Your task to perform on an android device: Go to settings Image 0: 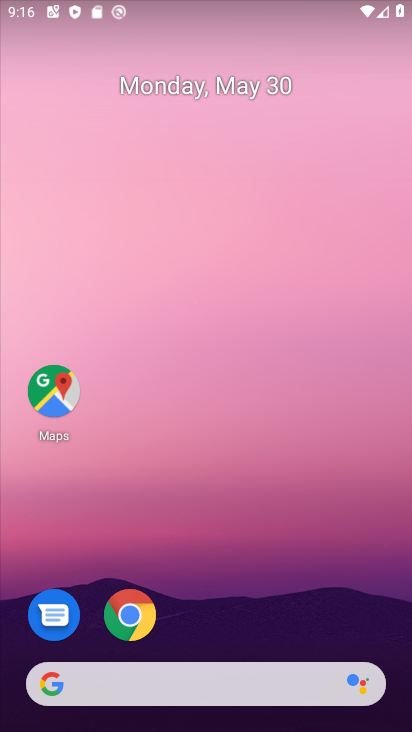
Step 0: drag from (274, 405) to (216, 19)
Your task to perform on an android device: Go to settings Image 1: 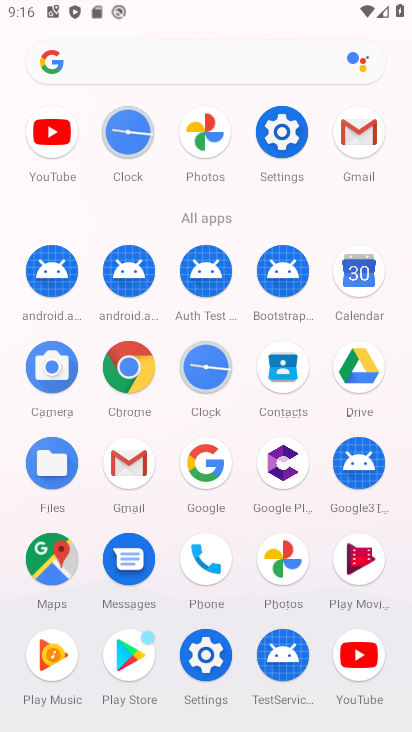
Step 1: click (284, 139)
Your task to perform on an android device: Go to settings Image 2: 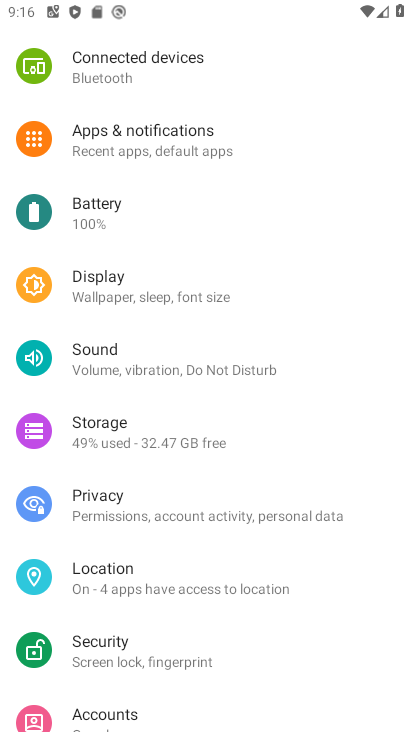
Step 2: task complete